Your task to perform on an android device: Turn on the flashlight Image 0: 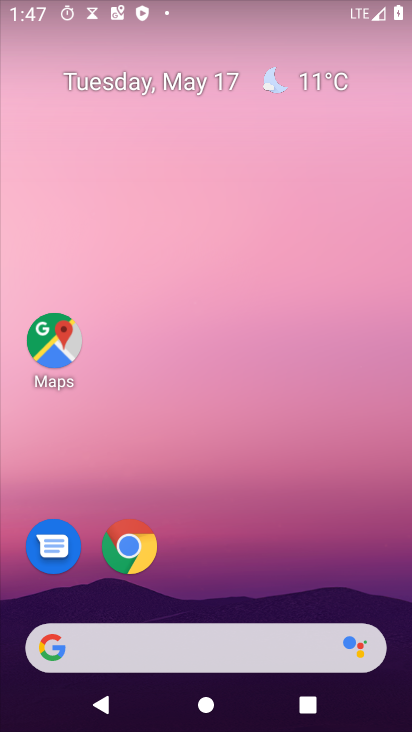
Step 0: press home button
Your task to perform on an android device: Turn on the flashlight Image 1: 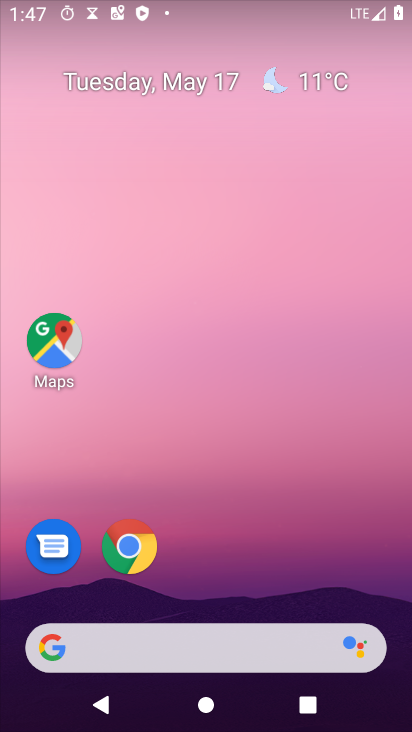
Step 1: task complete